Your task to perform on an android device: toggle show notifications on the lock screen Image 0: 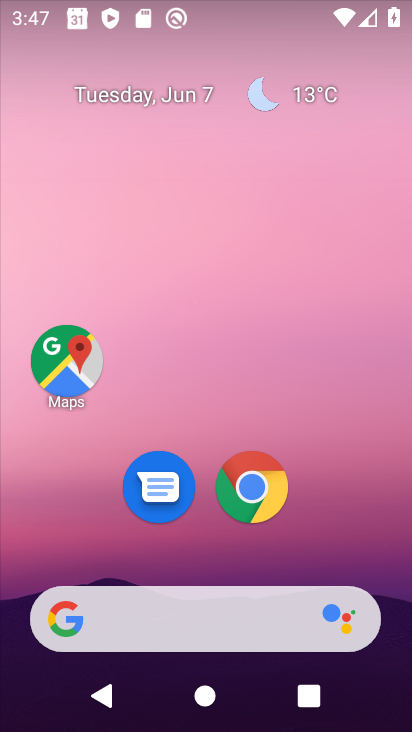
Step 0: click (252, 152)
Your task to perform on an android device: toggle show notifications on the lock screen Image 1: 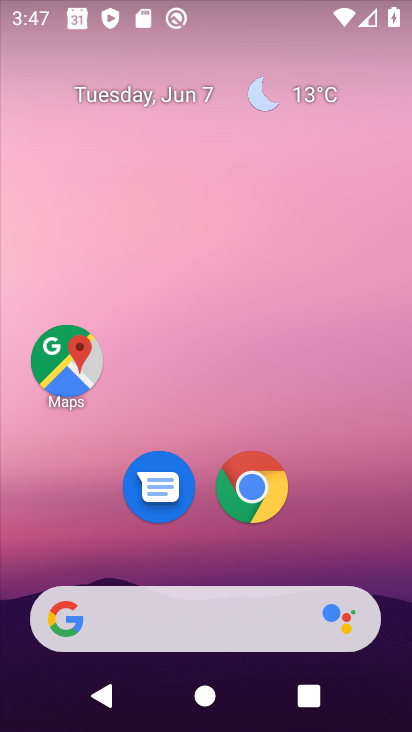
Step 1: drag from (221, 484) to (279, 72)
Your task to perform on an android device: toggle show notifications on the lock screen Image 2: 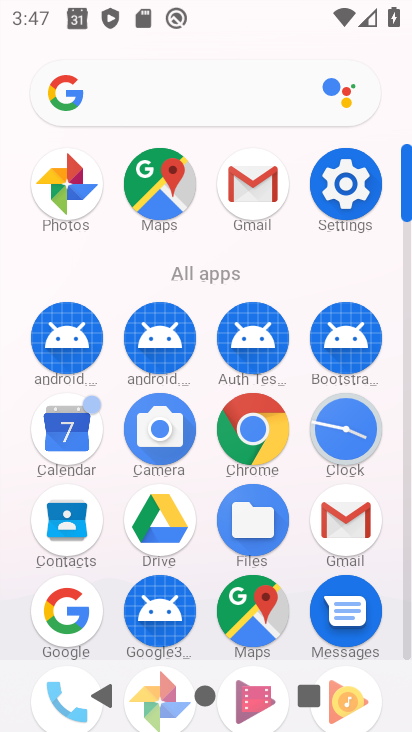
Step 2: click (361, 181)
Your task to perform on an android device: toggle show notifications on the lock screen Image 3: 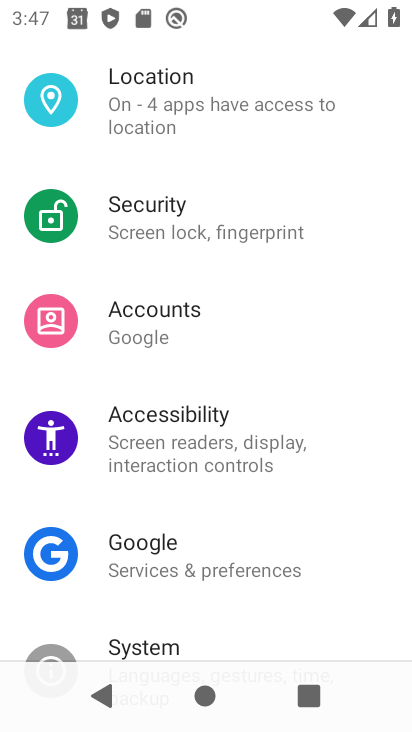
Step 3: drag from (237, 153) to (161, 710)
Your task to perform on an android device: toggle show notifications on the lock screen Image 4: 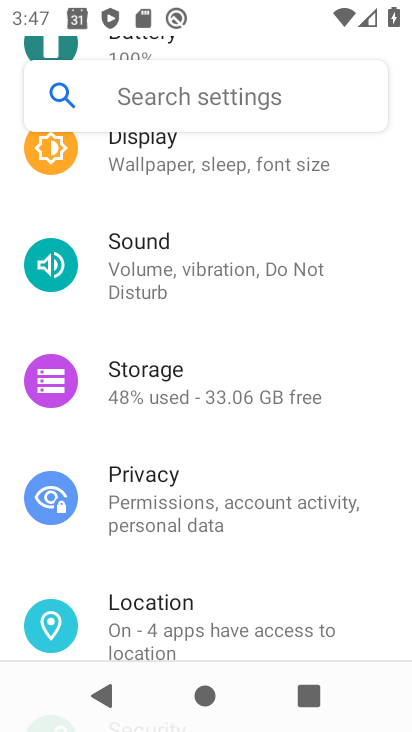
Step 4: drag from (232, 258) to (128, 698)
Your task to perform on an android device: toggle show notifications on the lock screen Image 5: 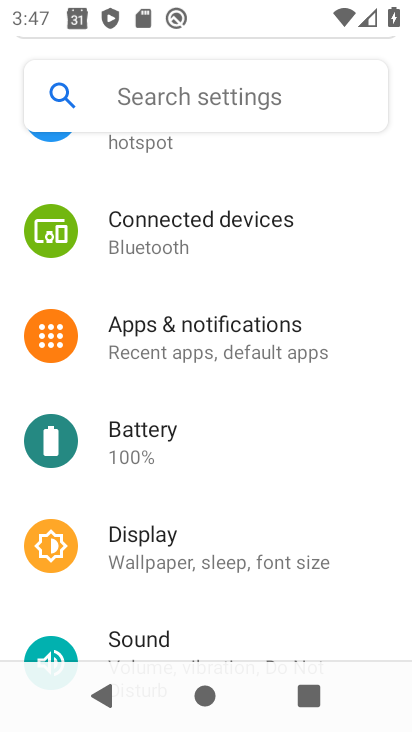
Step 5: click (236, 338)
Your task to perform on an android device: toggle show notifications on the lock screen Image 6: 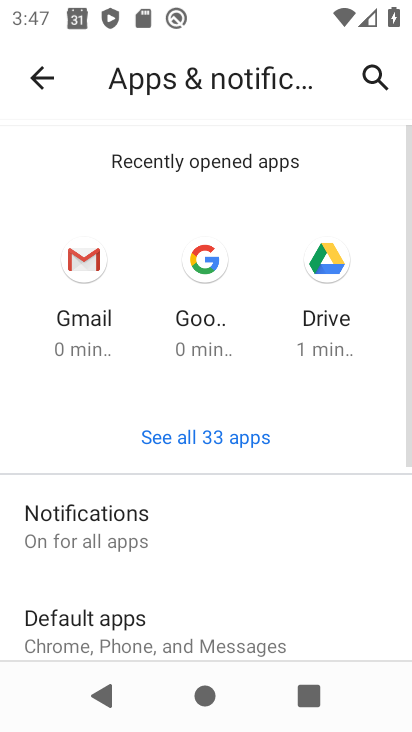
Step 6: click (112, 531)
Your task to perform on an android device: toggle show notifications on the lock screen Image 7: 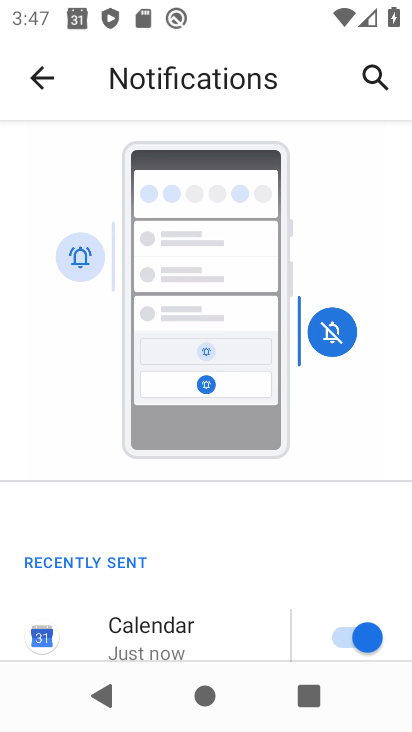
Step 7: drag from (161, 606) to (251, 147)
Your task to perform on an android device: toggle show notifications on the lock screen Image 8: 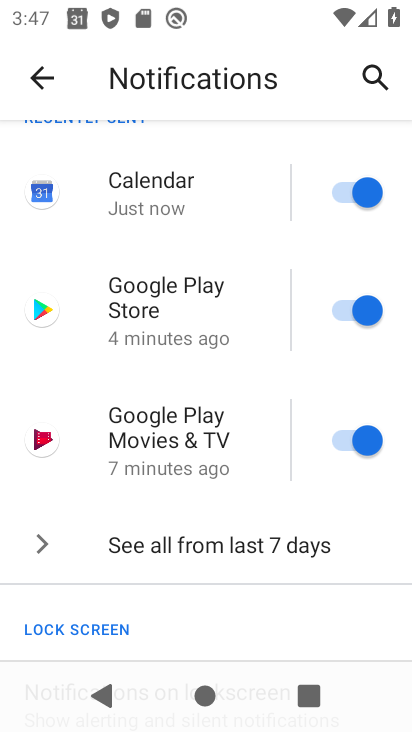
Step 8: drag from (164, 568) to (208, 210)
Your task to perform on an android device: toggle show notifications on the lock screen Image 9: 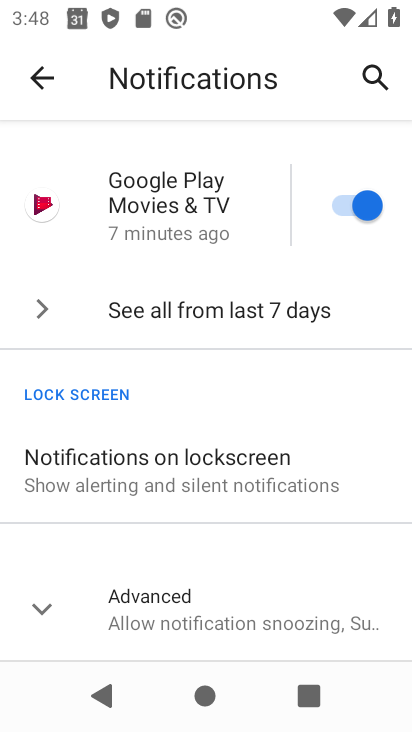
Step 9: click (240, 474)
Your task to perform on an android device: toggle show notifications on the lock screen Image 10: 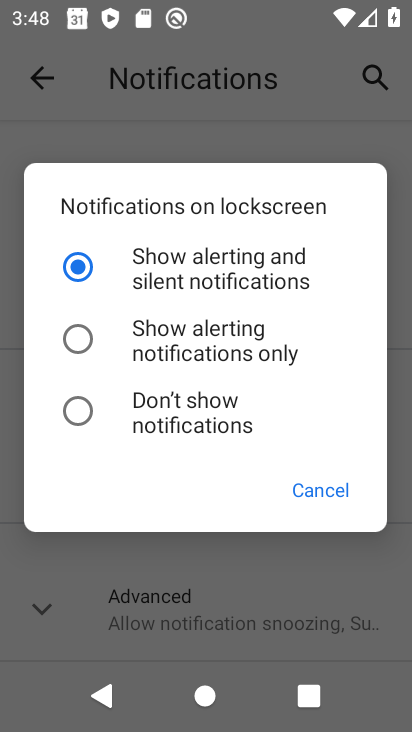
Step 10: task complete